Your task to perform on an android device: turn off location history Image 0: 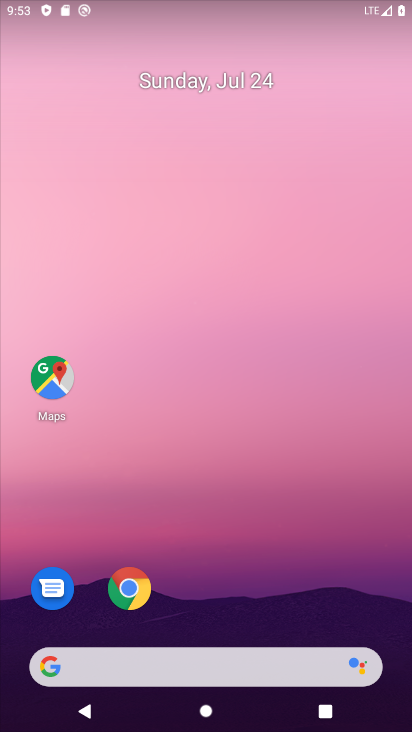
Step 0: click (43, 368)
Your task to perform on an android device: turn off location history Image 1: 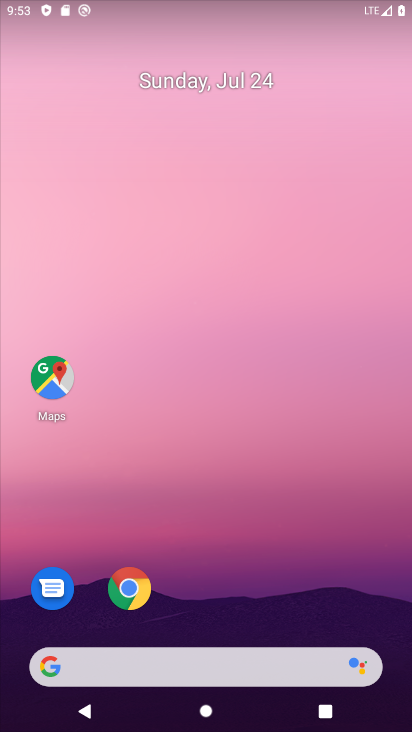
Step 1: click (43, 368)
Your task to perform on an android device: turn off location history Image 2: 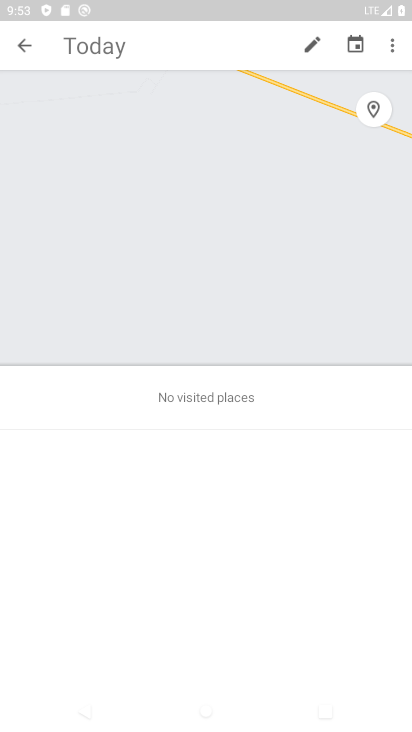
Step 2: click (391, 45)
Your task to perform on an android device: turn off location history Image 3: 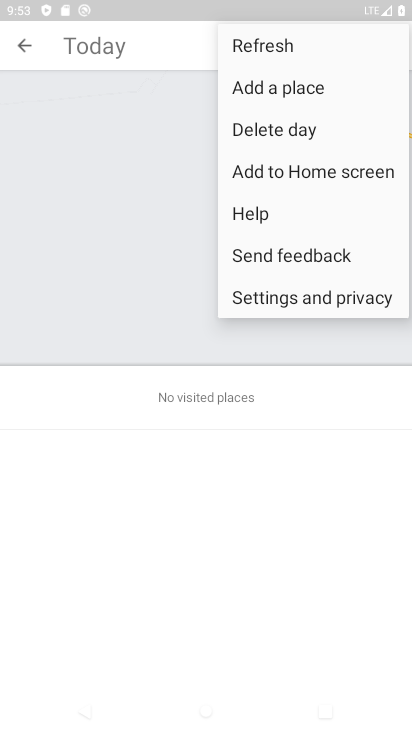
Step 3: click (329, 303)
Your task to perform on an android device: turn off location history Image 4: 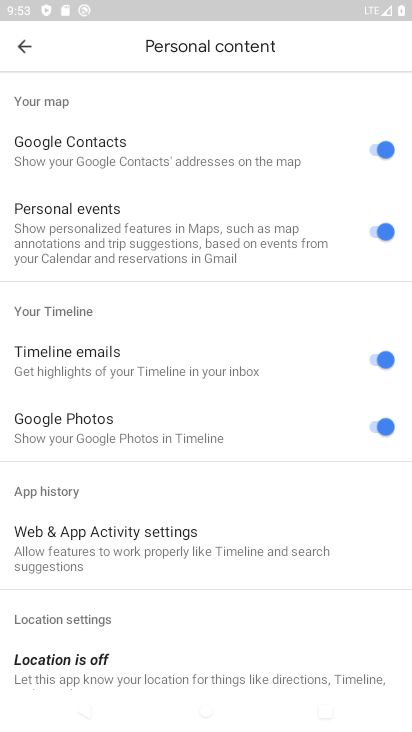
Step 4: drag from (262, 648) to (227, 141)
Your task to perform on an android device: turn off location history Image 5: 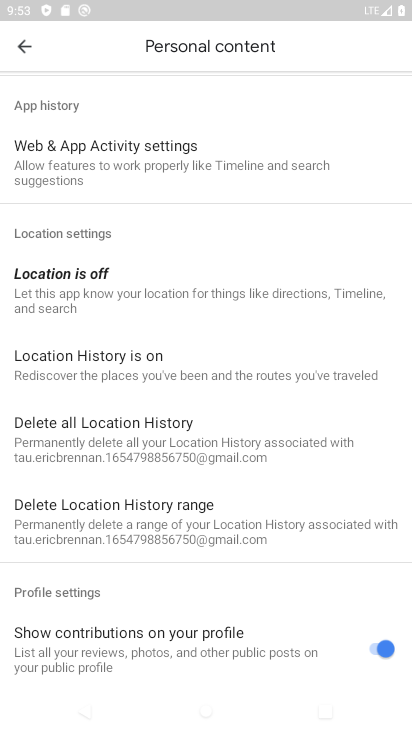
Step 5: click (182, 368)
Your task to perform on an android device: turn off location history Image 6: 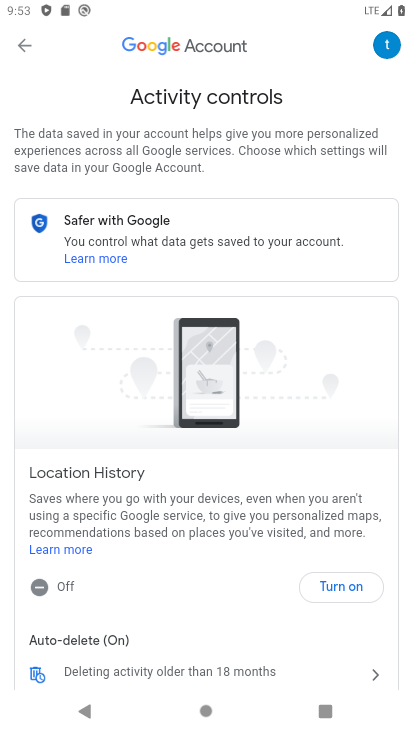
Step 6: task complete